Your task to perform on an android device: set the timer Image 0: 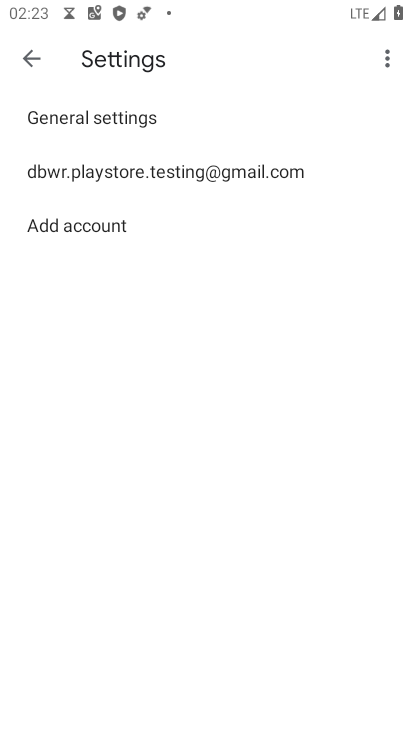
Step 0: drag from (254, 543) to (291, 294)
Your task to perform on an android device: set the timer Image 1: 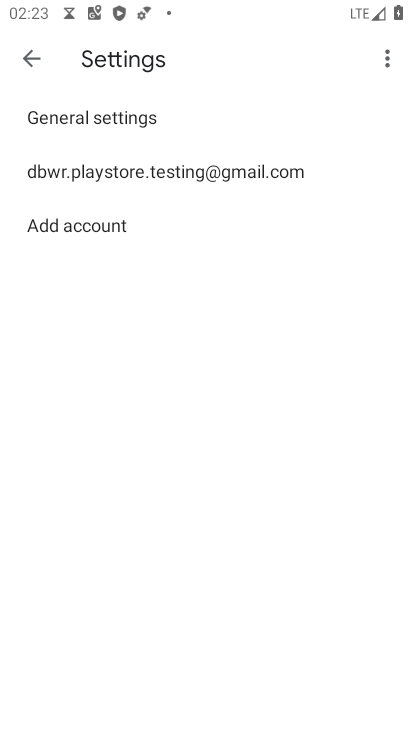
Step 1: press home button
Your task to perform on an android device: set the timer Image 2: 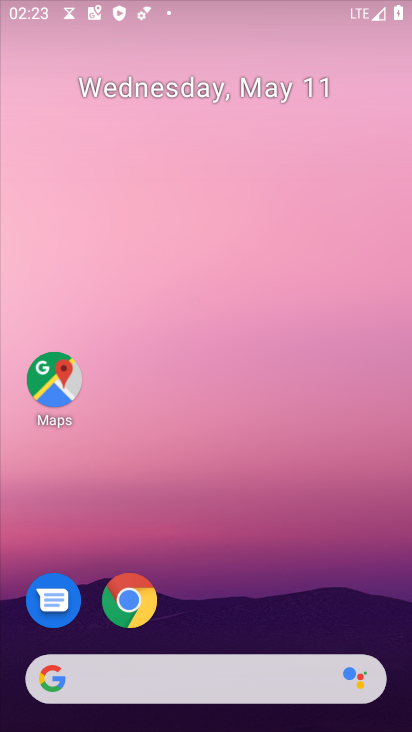
Step 2: drag from (280, 566) to (307, 271)
Your task to perform on an android device: set the timer Image 3: 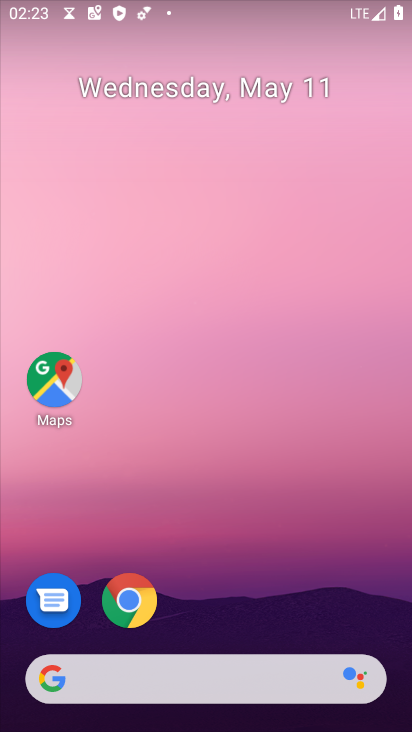
Step 3: drag from (255, 524) to (277, 235)
Your task to perform on an android device: set the timer Image 4: 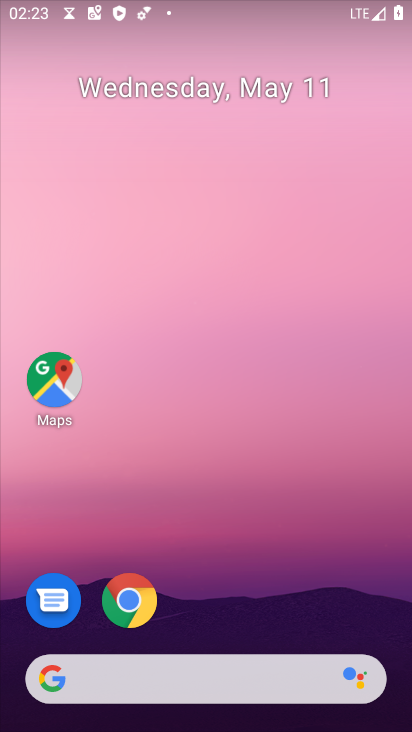
Step 4: drag from (227, 632) to (287, 260)
Your task to perform on an android device: set the timer Image 5: 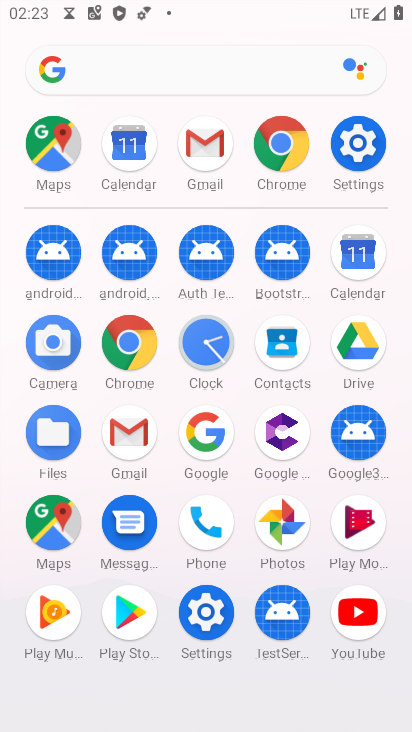
Step 5: click (211, 336)
Your task to perform on an android device: set the timer Image 6: 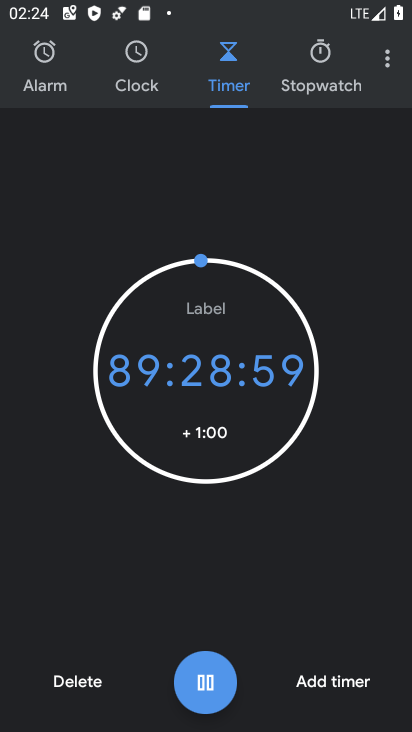
Step 6: task complete